Your task to perform on an android device: Play the last video I watched on Youtube Image 0: 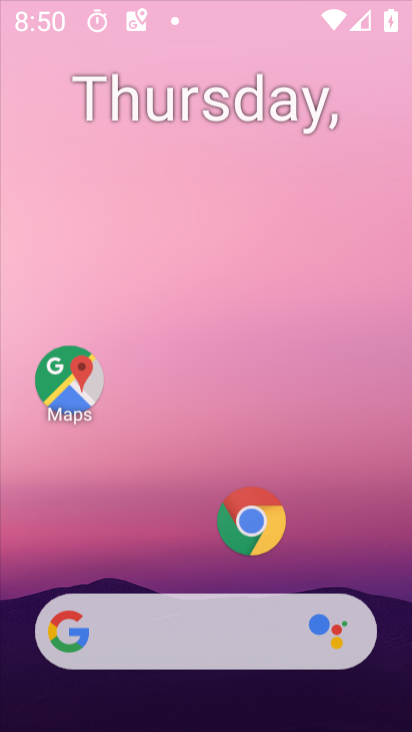
Step 0: press home button
Your task to perform on an android device: Play the last video I watched on Youtube Image 1: 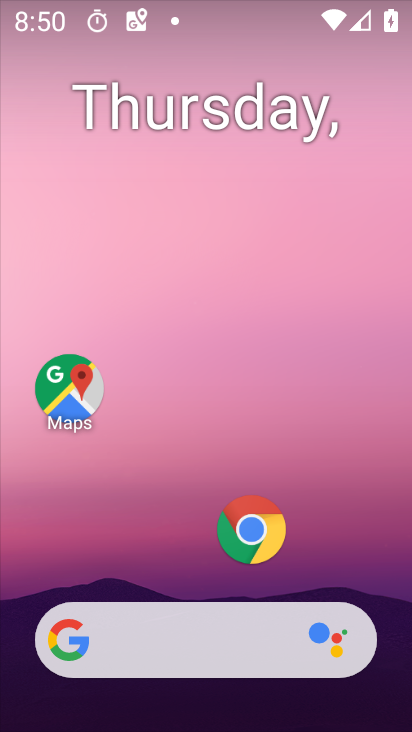
Step 1: drag from (207, 570) to (220, 55)
Your task to perform on an android device: Play the last video I watched on Youtube Image 2: 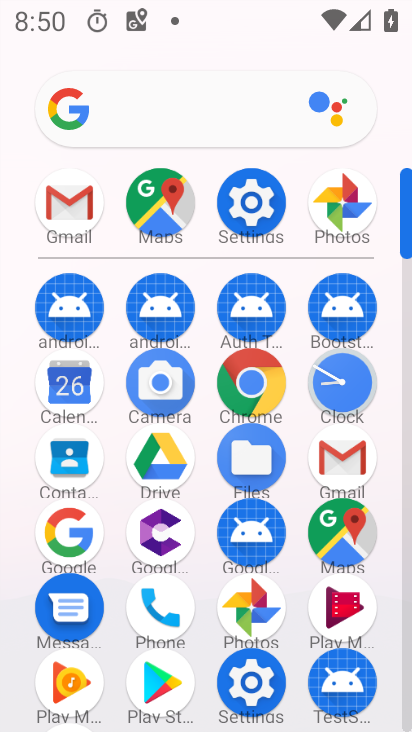
Step 2: drag from (209, 647) to (237, 174)
Your task to perform on an android device: Play the last video I watched on Youtube Image 3: 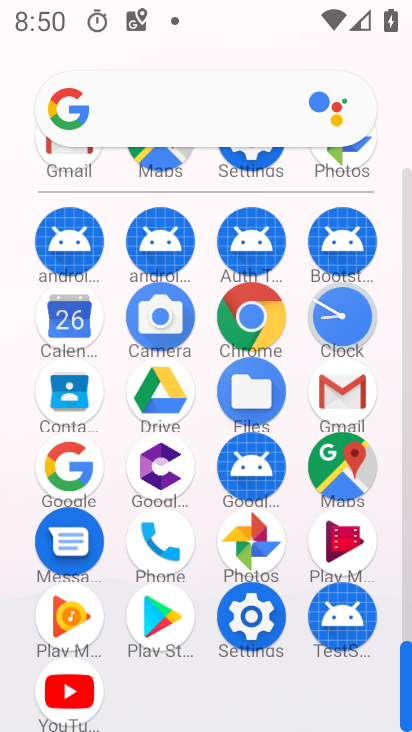
Step 3: click (67, 686)
Your task to perform on an android device: Play the last video I watched on Youtube Image 4: 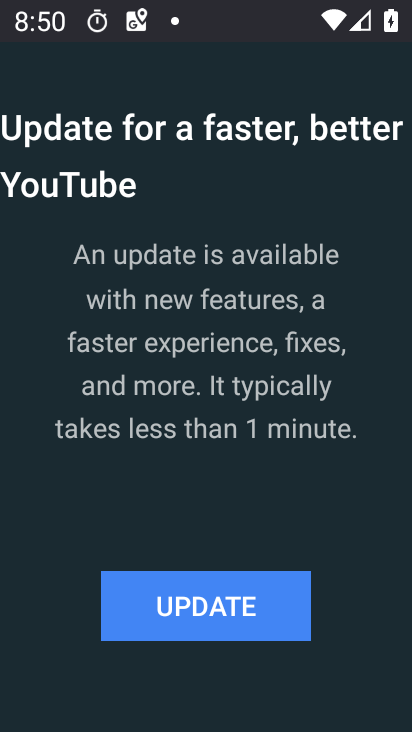
Step 4: click (210, 603)
Your task to perform on an android device: Play the last video I watched on Youtube Image 5: 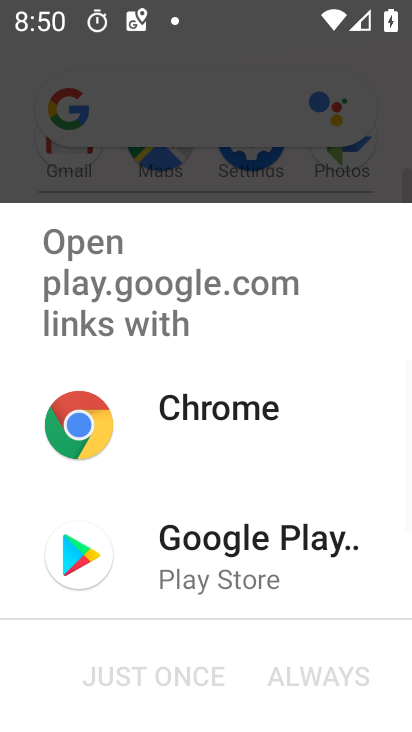
Step 5: click (180, 562)
Your task to perform on an android device: Play the last video I watched on Youtube Image 6: 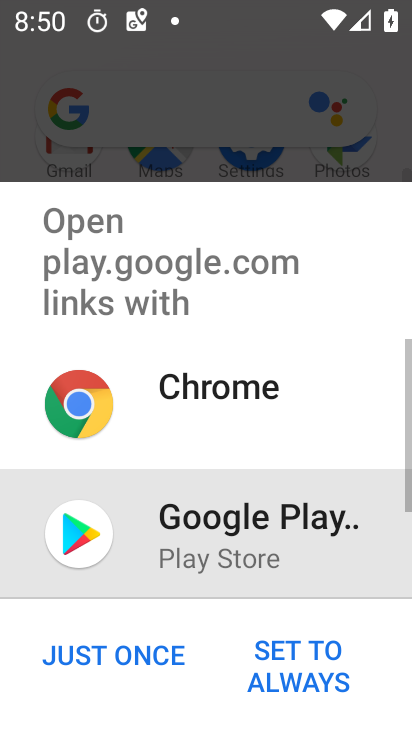
Step 6: click (103, 651)
Your task to perform on an android device: Play the last video I watched on Youtube Image 7: 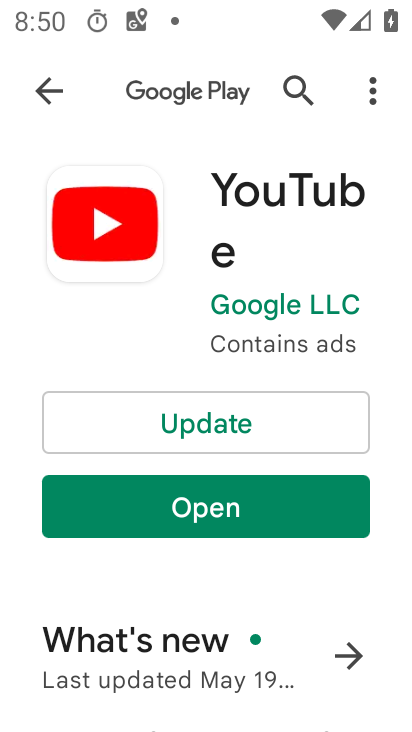
Step 7: click (220, 423)
Your task to perform on an android device: Play the last video I watched on Youtube Image 8: 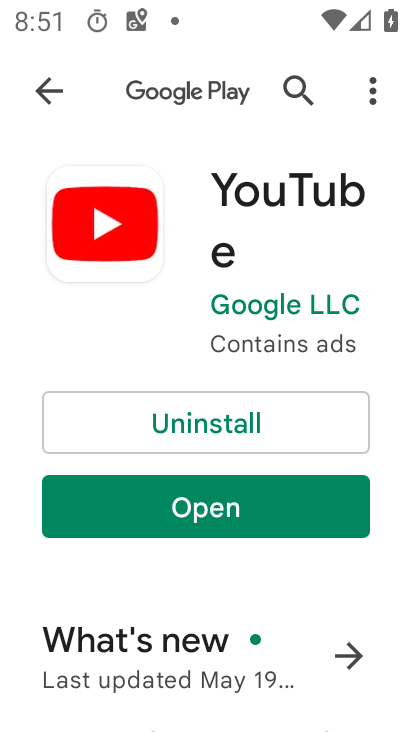
Step 8: click (208, 511)
Your task to perform on an android device: Play the last video I watched on Youtube Image 9: 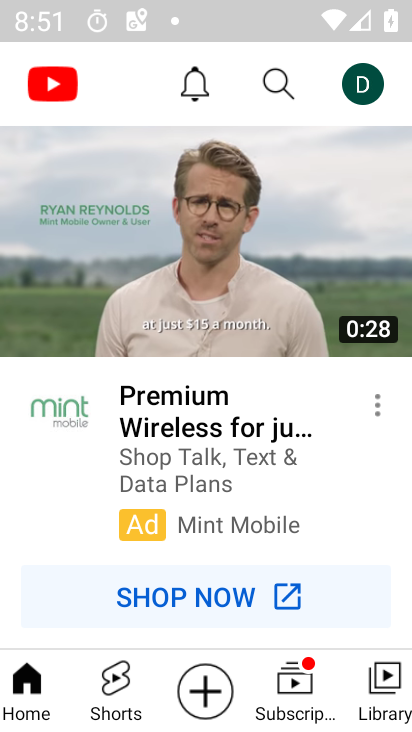
Step 9: drag from (209, 548) to (252, 113)
Your task to perform on an android device: Play the last video I watched on Youtube Image 10: 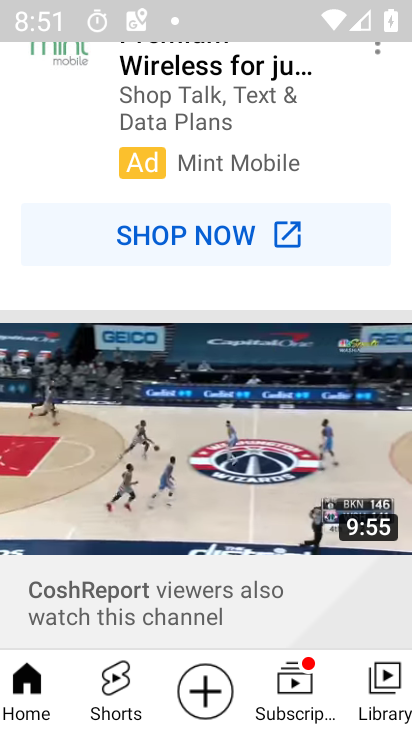
Step 10: drag from (219, 584) to (231, 307)
Your task to perform on an android device: Play the last video I watched on Youtube Image 11: 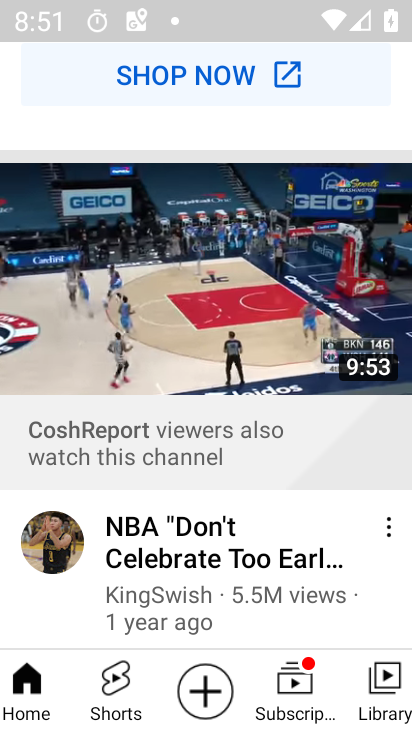
Step 11: click (380, 684)
Your task to perform on an android device: Play the last video I watched on Youtube Image 12: 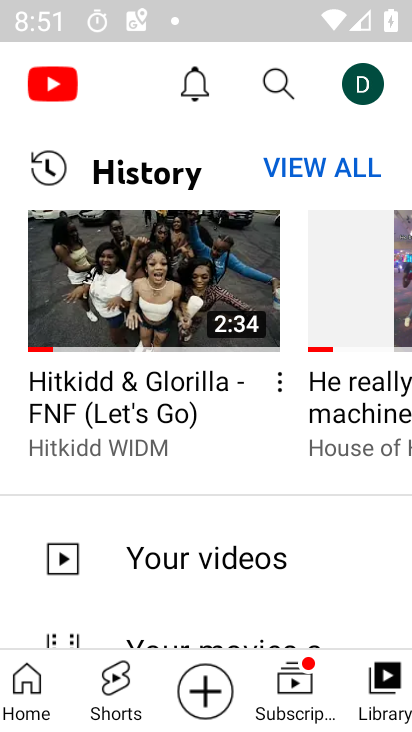
Step 12: click (145, 271)
Your task to perform on an android device: Play the last video I watched on Youtube Image 13: 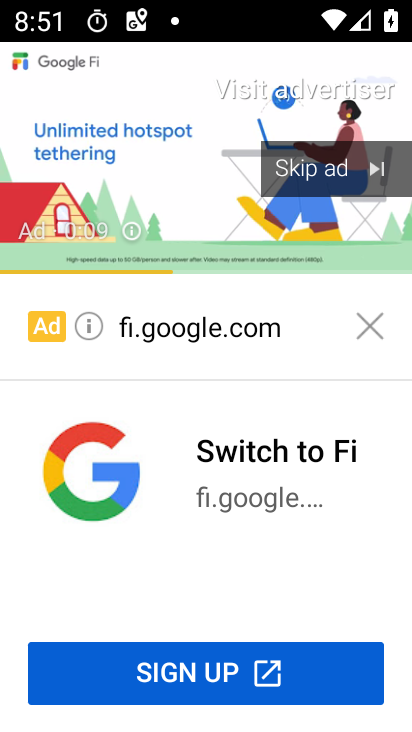
Step 13: click (350, 172)
Your task to perform on an android device: Play the last video I watched on Youtube Image 14: 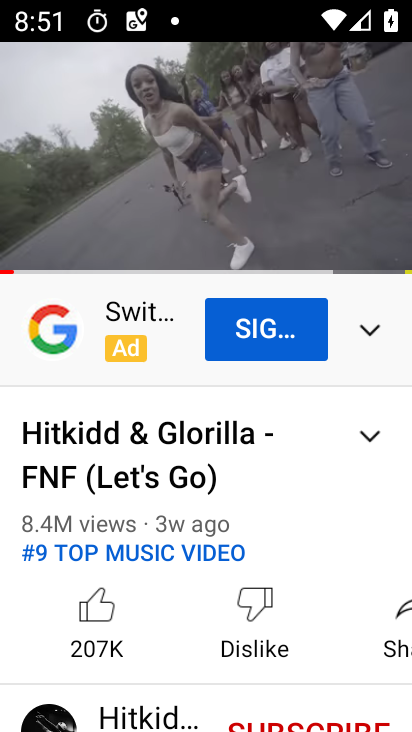
Step 14: task complete